Your task to perform on an android device: snooze an email in the gmail app Image 0: 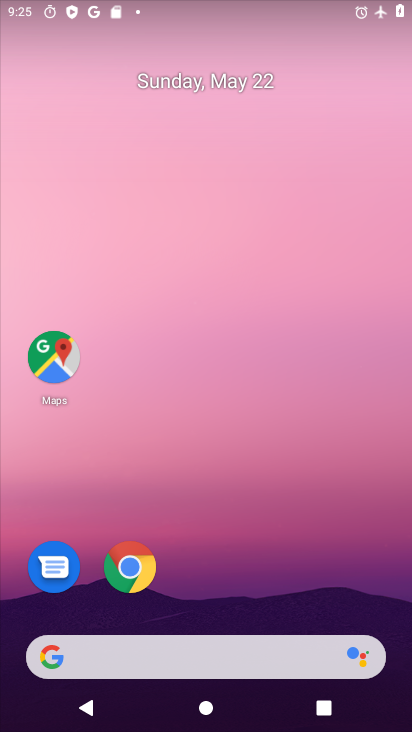
Step 0: click (133, 566)
Your task to perform on an android device: snooze an email in the gmail app Image 1: 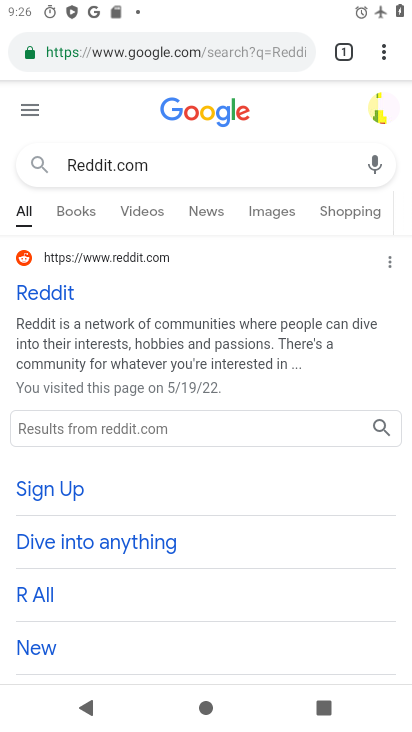
Step 1: press home button
Your task to perform on an android device: snooze an email in the gmail app Image 2: 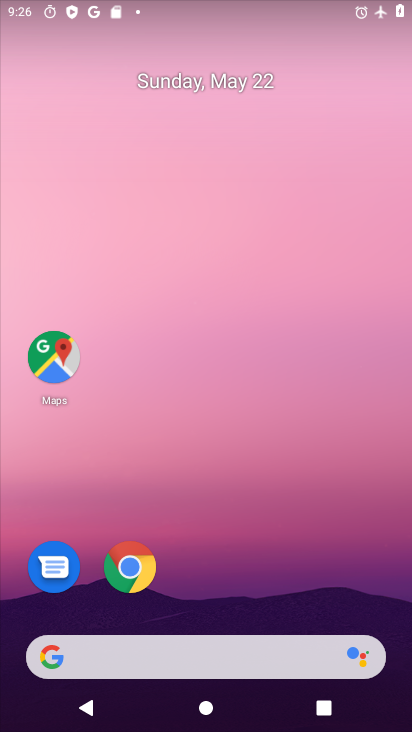
Step 2: drag from (185, 539) to (133, 41)
Your task to perform on an android device: snooze an email in the gmail app Image 3: 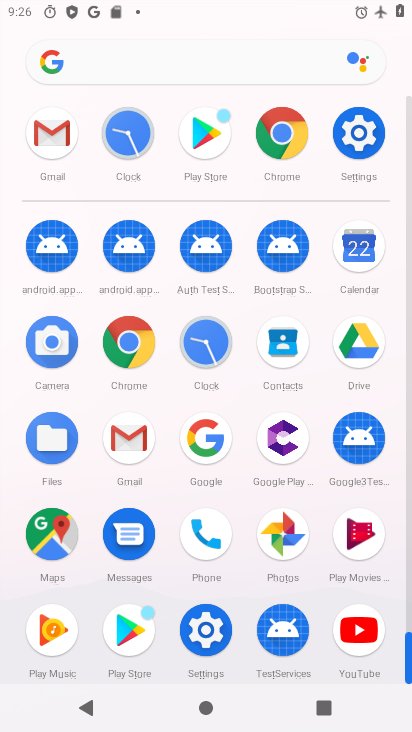
Step 3: click (131, 439)
Your task to perform on an android device: snooze an email in the gmail app Image 4: 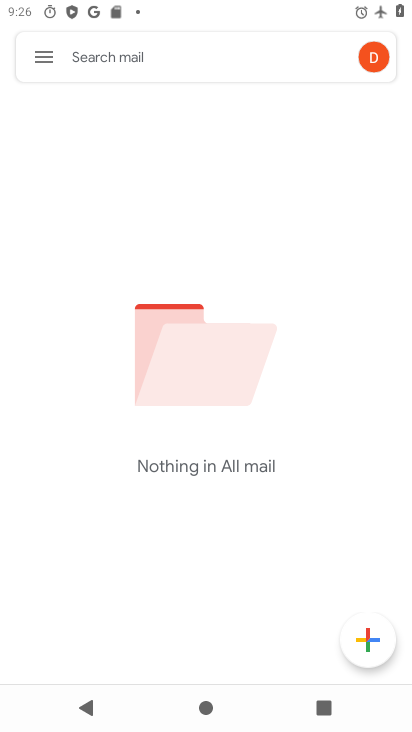
Step 4: task complete